Your task to perform on an android device: add a label to a message in the gmail app Image 0: 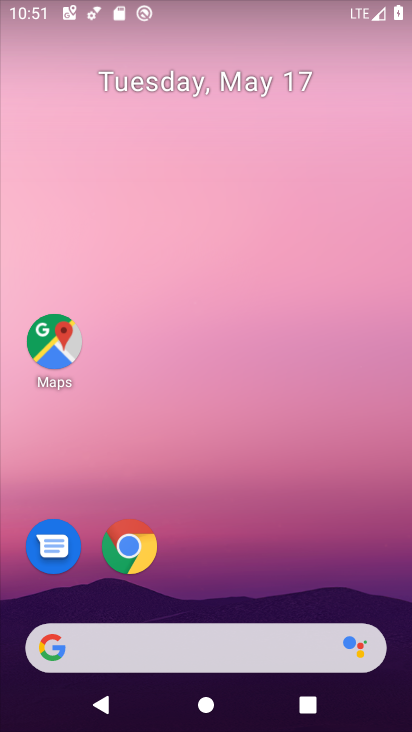
Step 0: drag from (225, 603) to (283, 121)
Your task to perform on an android device: add a label to a message in the gmail app Image 1: 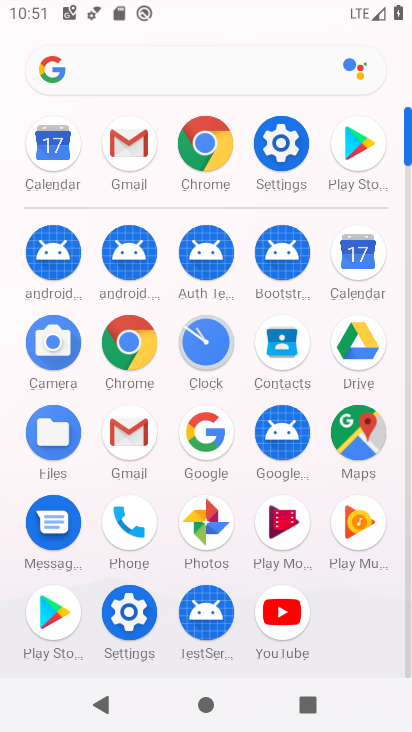
Step 1: click (130, 437)
Your task to perform on an android device: add a label to a message in the gmail app Image 2: 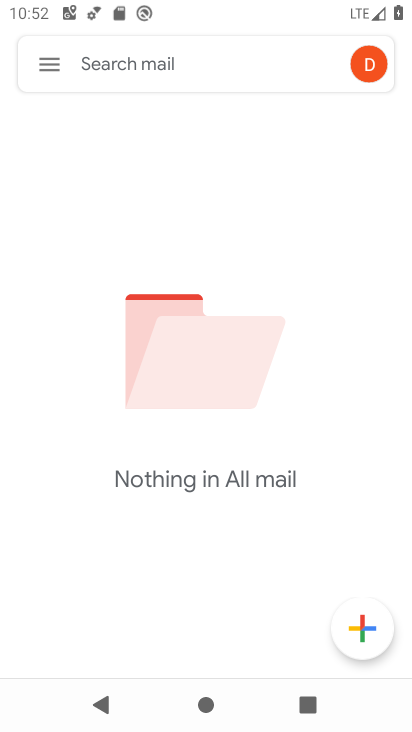
Step 2: task complete